Your task to perform on an android device: What's the weather going to be tomorrow? Image 0: 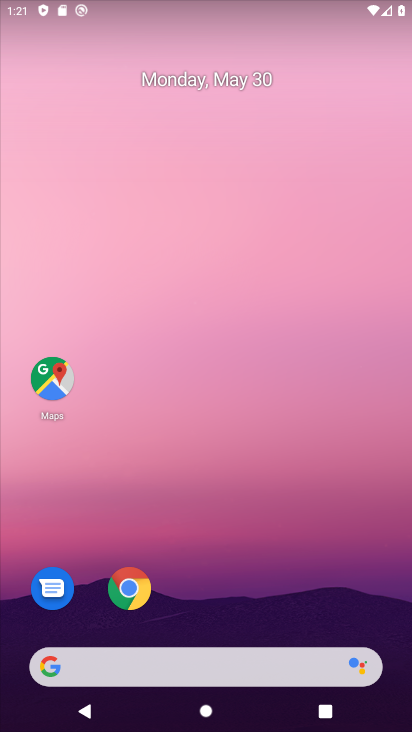
Step 0: press home button
Your task to perform on an android device: What's the weather going to be tomorrow? Image 1: 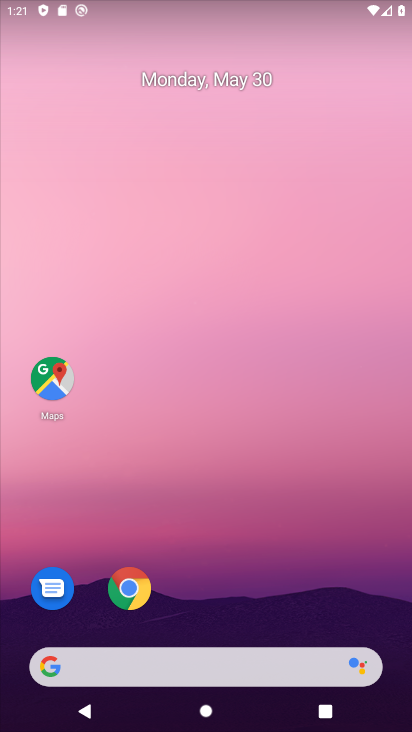
Step 1: drag from (246, 590) to (273, 25)
Your task to perform on an android device: What's the weather going to be tomorrow? Image 2: 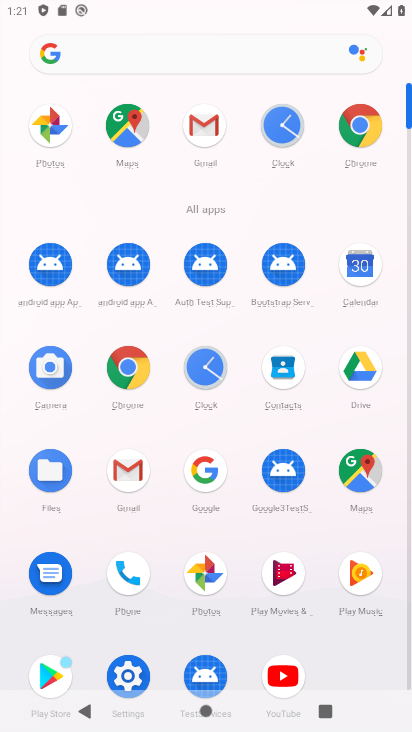
Step 2: click (207, 472)
Your task to perform on an android device: What's the weather going to be tomorrow? Image 3: 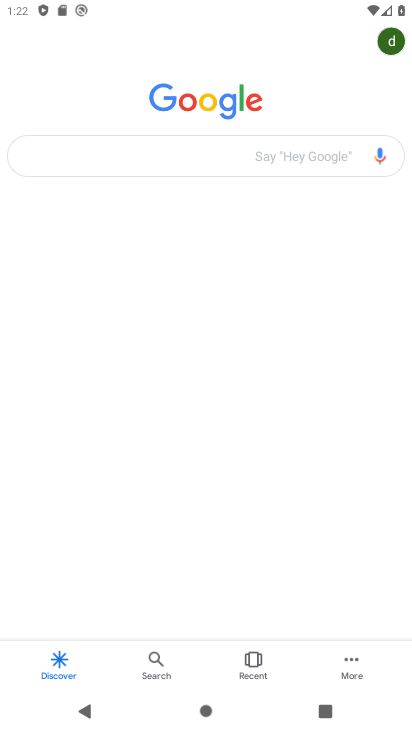
Step 3: click (172, 154)
Your task to perform on an android device: What's the weather going to be tomorrow? Image 4: 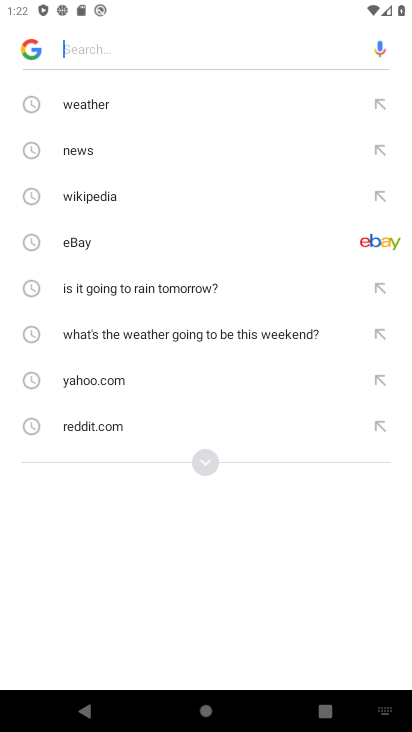
Step 4: click (214, 464)
Your task to perform on an android device: What's the weather going to be tomorrow? Image 5: 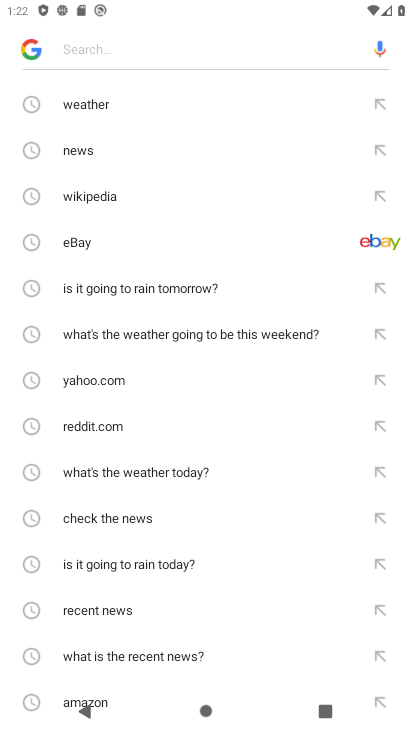
Step 5: drag from (196, 616) to (213, 174)
Your task to perform on an android device: What's the weather going to be tomorrow? Image 6: 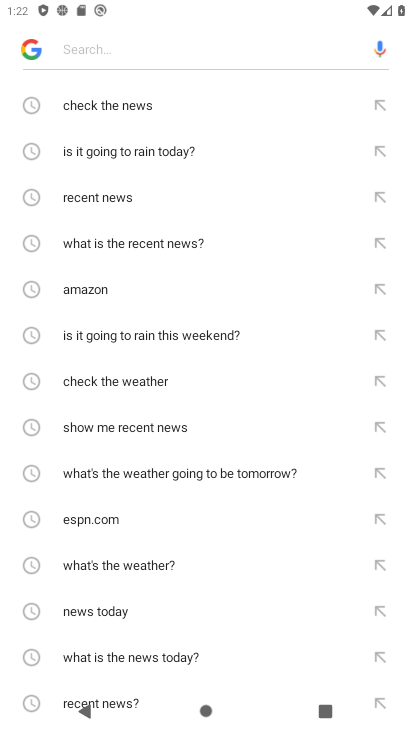
Step 6: click (185, 479)
Your task to perform on an android device: What's the weather going to be tomorrow? Image 7: 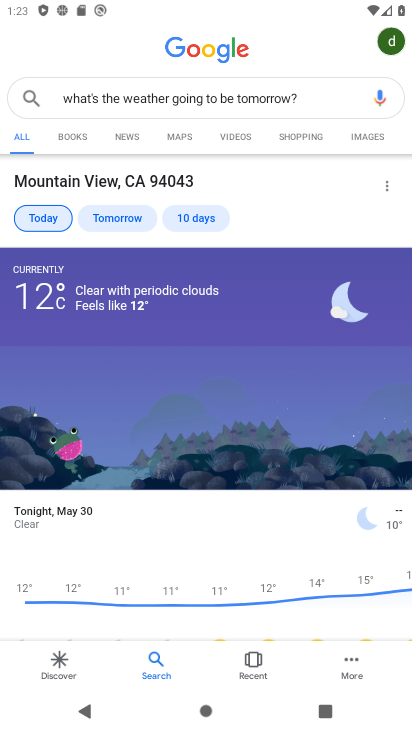
Step 7: task complete